Your task to perform on an android device: Open the Play Movies app and select the watchlist tab. Image 0: 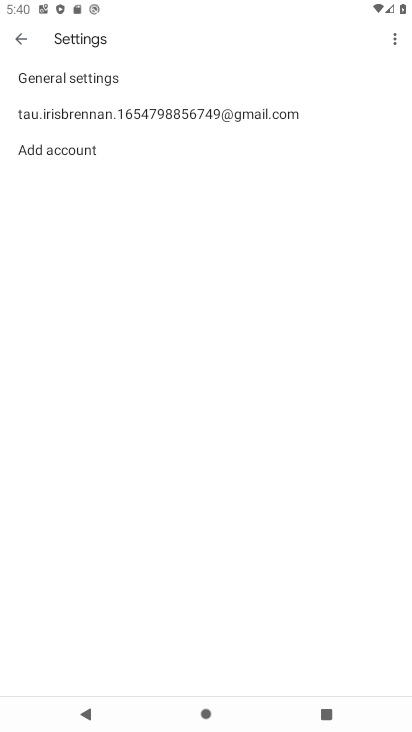
Step 0: press home button
Your task to perform on an android device: Open the Play Movies app and select the watchlist tab. Image 1: 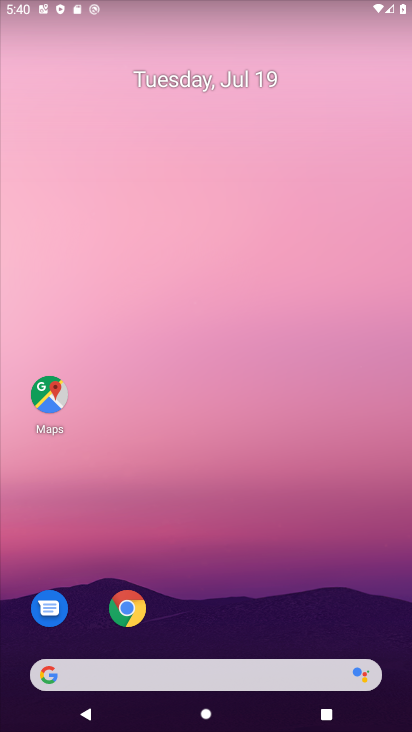
Step 1: drag from (158, 639) to (219, 69)
Your task to perform on an android device: Open the Play Movies app and select the watchlist tab. Image 2: 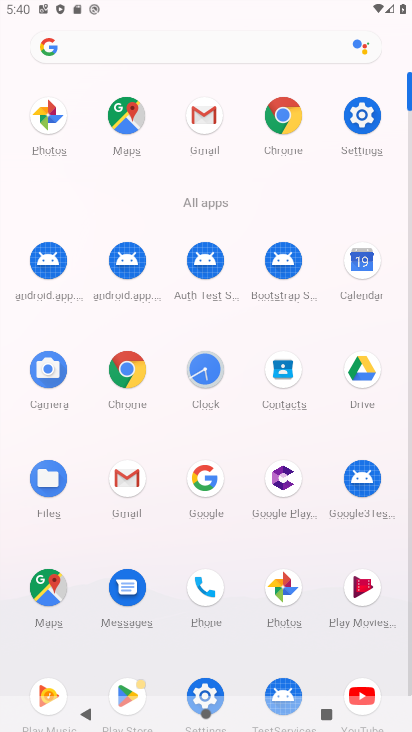
Step 2: click (360, 577)
Your task to perform on an android device: Open the Play Movies app and select the watchlist tab. Image 3: 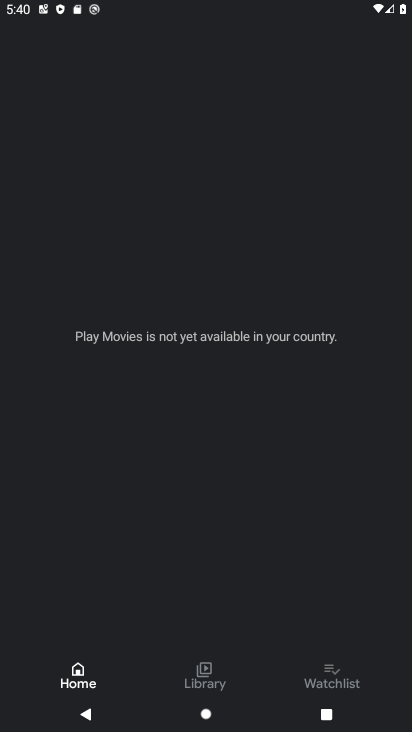
Step 3: click (335, 683)
Your task to perform on an android device: Open the Play Movies app and select the watchlist tab. Image 4: 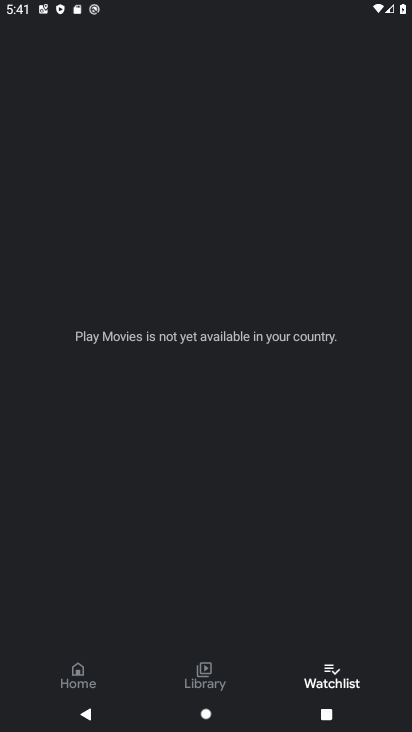
Step 4: task complete